Your task to perform on an android device: Open Wikipedia Image 0: 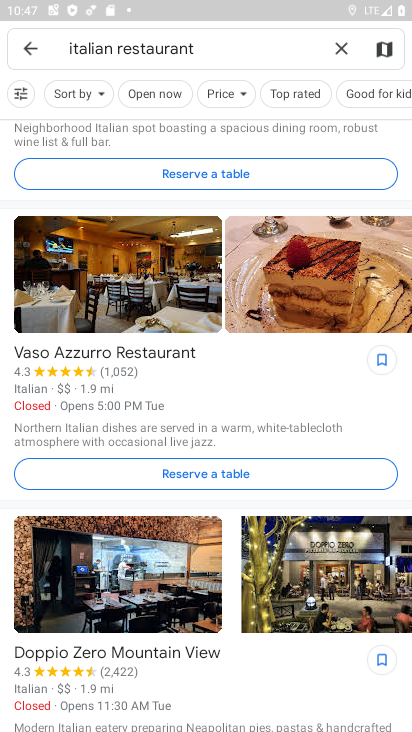
Step 0: press home button
Your task to perform on an android device: Open Wikipedia Image 1: 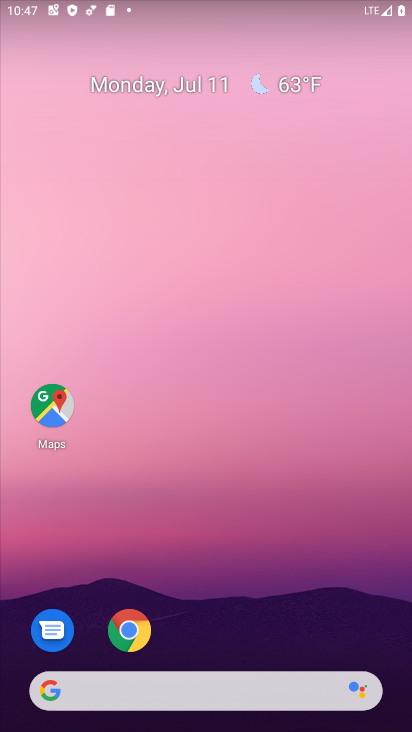
Step 1: click (124, 631)
Your task to perform on an android device: Open Wikipedia Image 2: 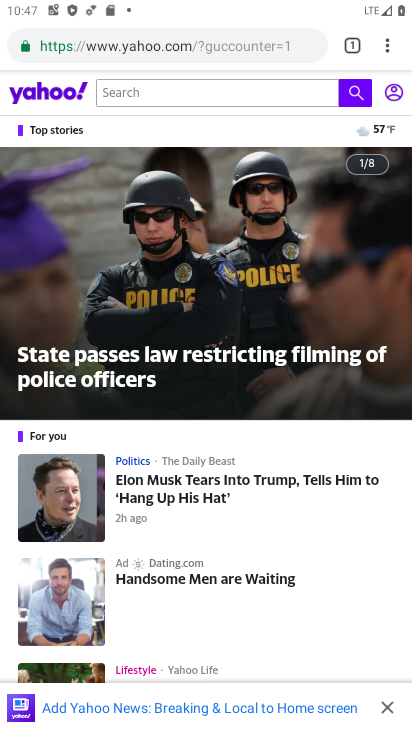
Step 2: click (230, 46)
Your task to perform on an android device: Open Wikipedia Image 3: 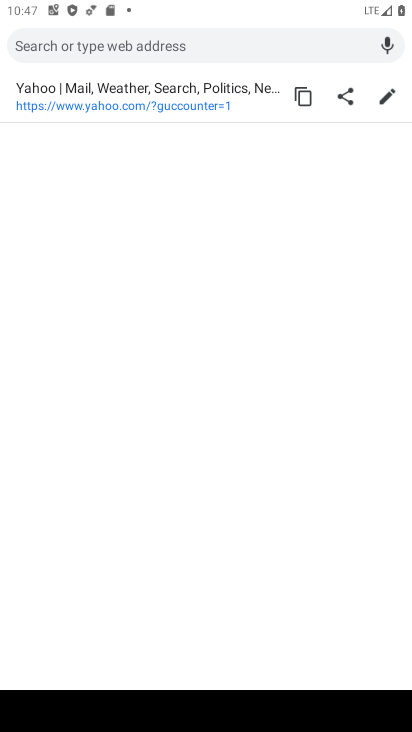
Step 3: type "wikipedia"
Your task to perform on an android device: Open Wikipedia Image 4: 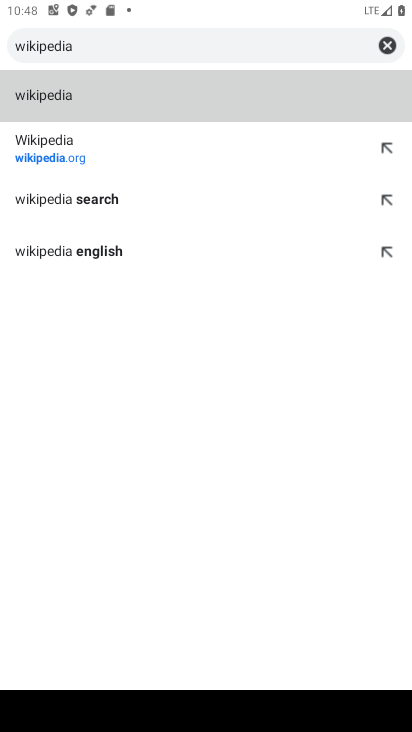
Step 4: click (52, 137)
Your task to perform on an android device: Open Wikipedia Image 5: 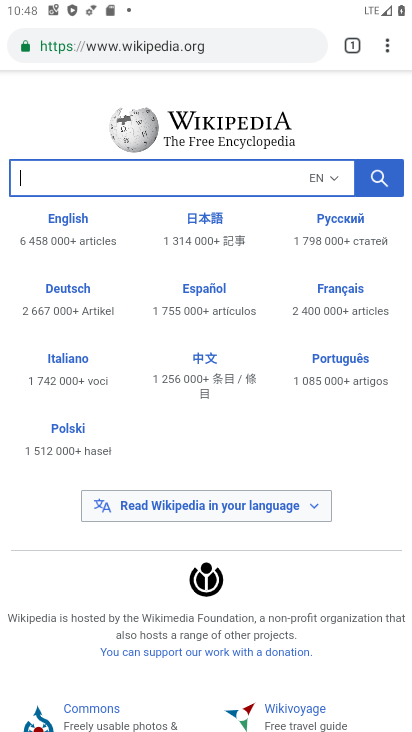
Step 5: task complete